Your task to perform on an android device: Find coffee shops on Maps Image 0: 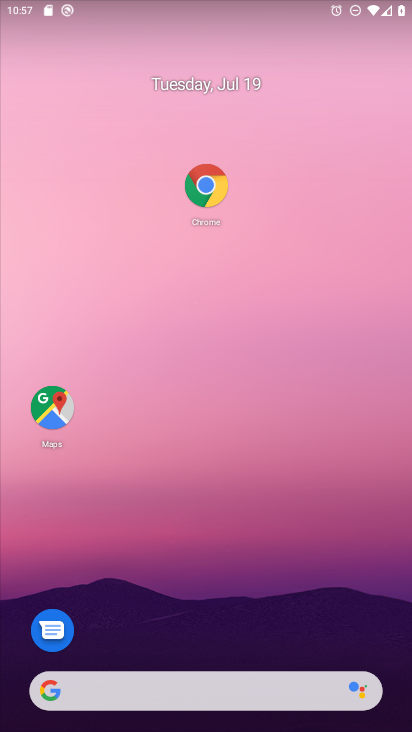
Step 0: drag from (213, 643) to (220, 243)
Your task to perform on an android device: Find coffee shops on Maps Image 1: 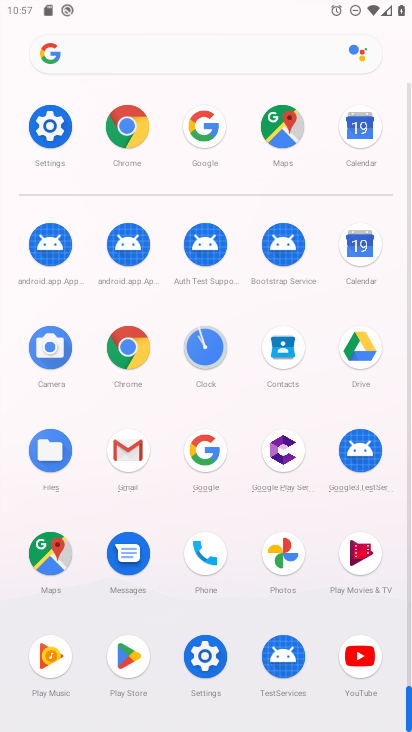
Step 1: drag from (283, 372) to (318, 132)
Your task to perform on an android device: Find coffee shops on Maps Image 2: 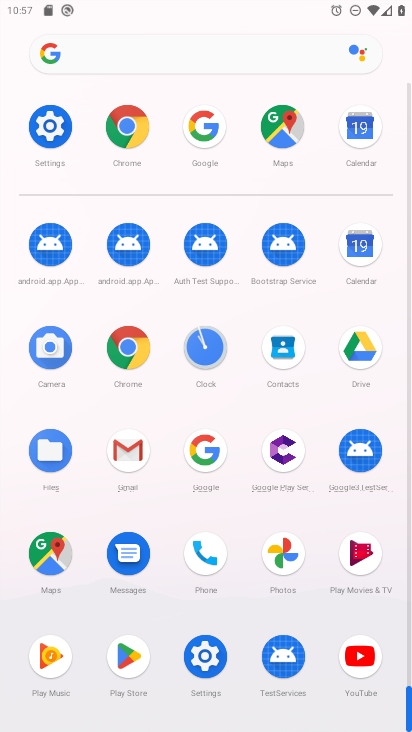
Step 2: click (285, 139)
Your task to perform on an android device: Find coffee shops on Maps Image 3: 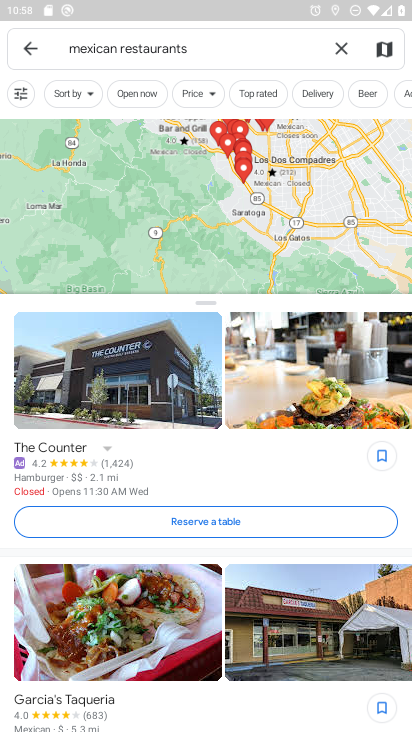
Step 3: click (335, 45)
Your task to perform on an android device: Find coffee shops on Maps Image 4: 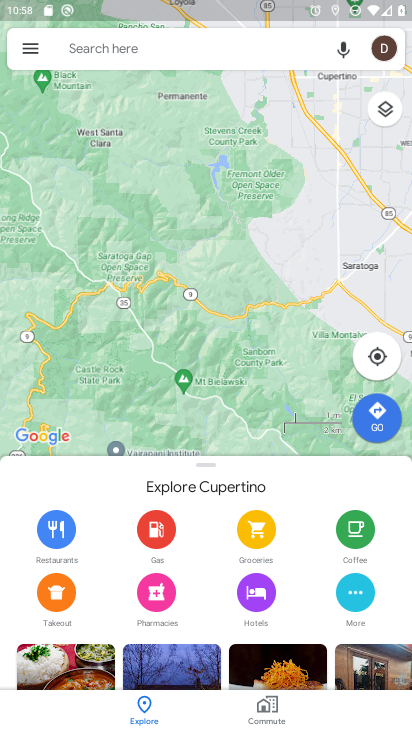
Step 4: click (269, 51)
Your task to perform on an android device: Find coffee shops on Maps Image 5: 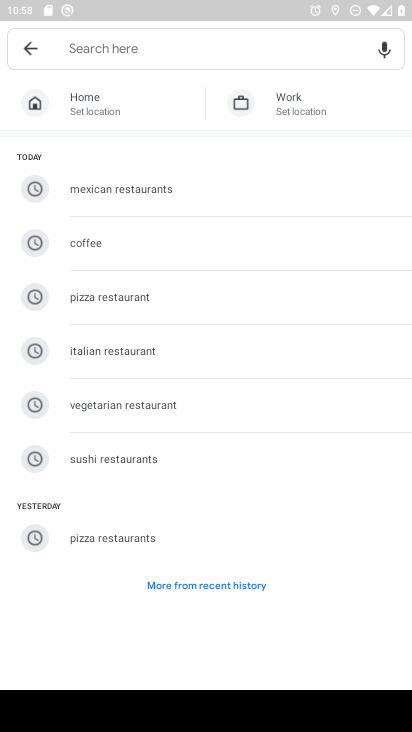
Step 5: type "coffee shops"
Your task to perform on an android device: Find coffee shops on Maps Image 6: 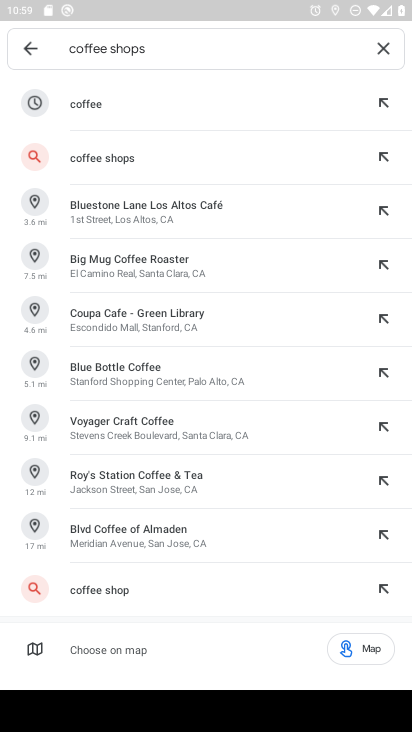
Step 6: click (222, 155)
Your task to perform on an android device: Find coffee shops on Maps Image 7: 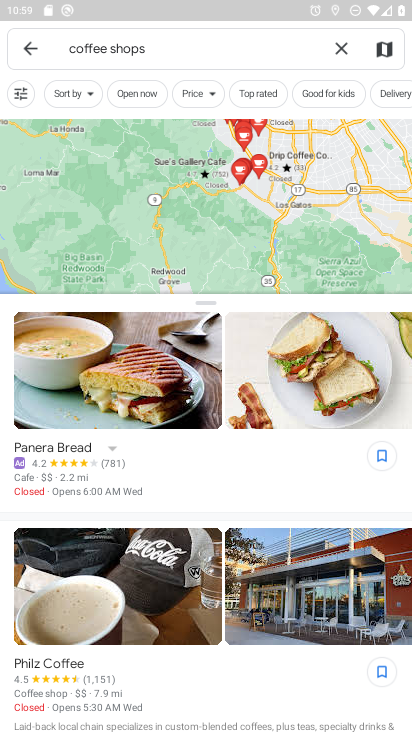
Step 7: task complete